Your task to perform on an android device: Show me recent news Image 0: 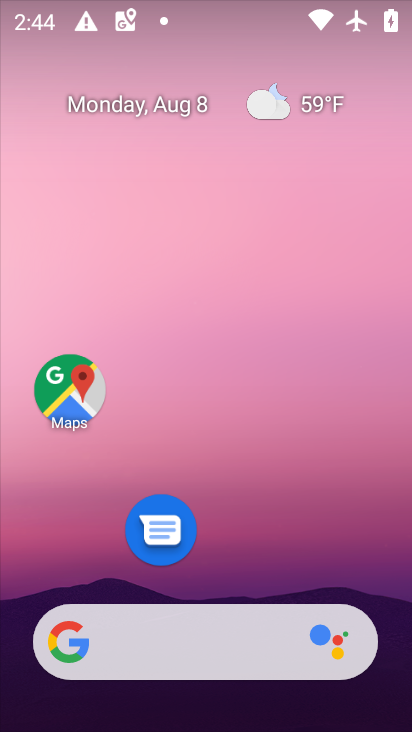
Step 0: drag from (5, 177) to (328, 174)
Your task to perform on an android device: Show me recent news Image 1: 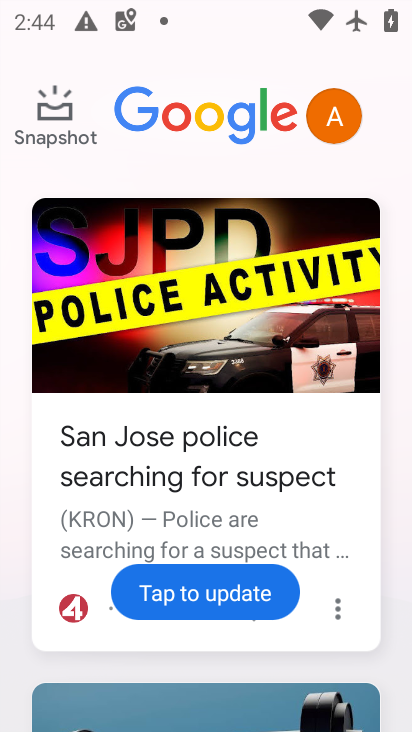
Step 1: task complete